Your task to perform on an android device: Open Android settings Image 0: 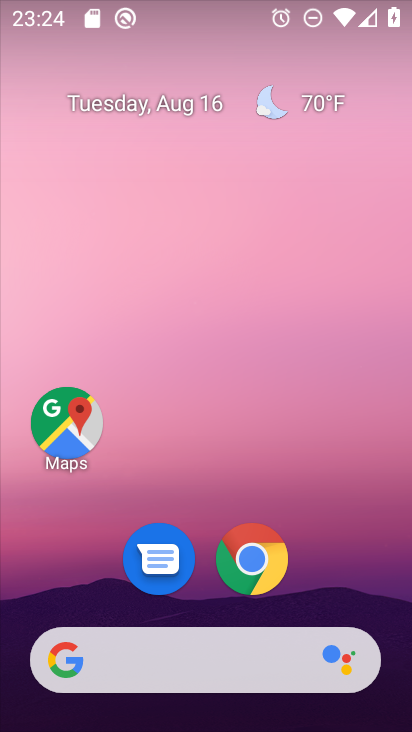
Step 0: drag from (185, 669) to (226, 144)
Your task to perform on an android device: Open Android settings Image 1: 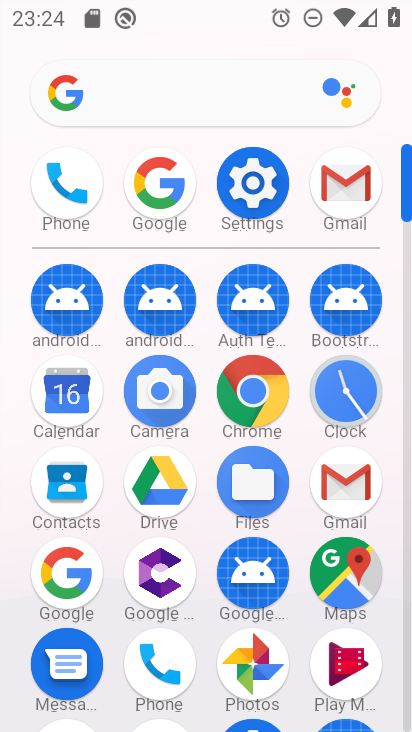
Step 1: click (252, 183)
Your task to perform on an android device: Open Android settings Image 2: 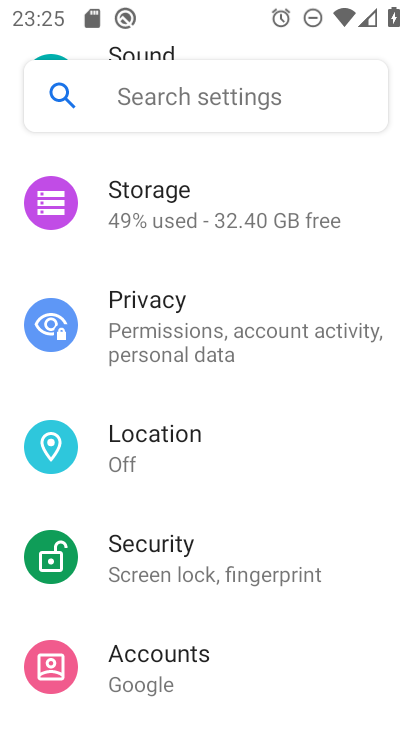
Step 2: task complete